Your task to perform on an android device: Go to Reddit.com Image 0: 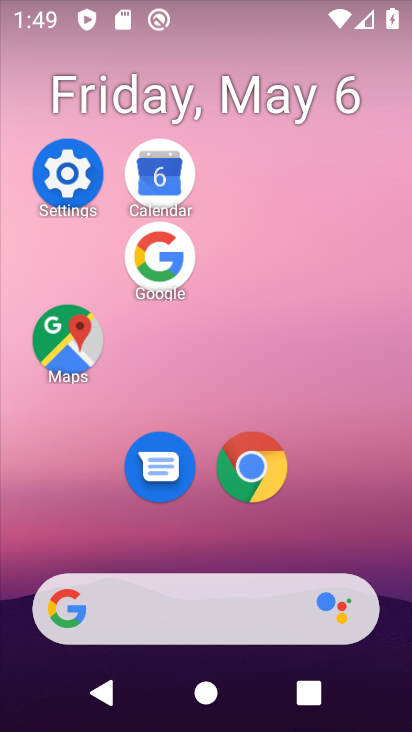
Step 0: click (260, 467)
Your task to perform on an android device: Go to Reddit.com Image 1: 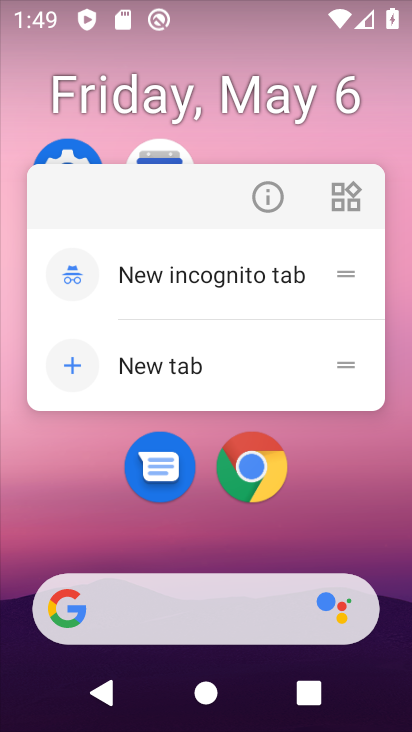
Step 1: click (260, 467)
Your task to perform on an android device: Go to Reddit.com Image 2: 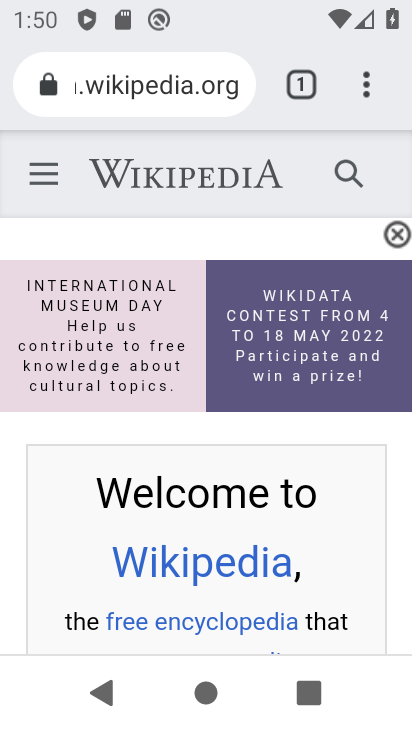
Step 2: click (289, 89)
Your task to perform on an android device: Go to Reddit.com Image 3: 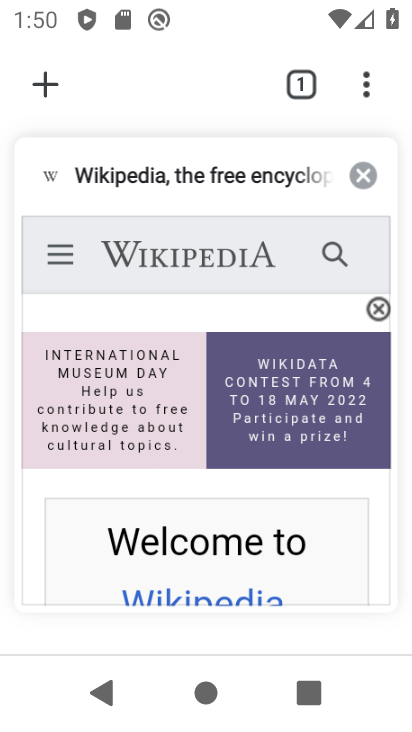
Step 3: click (56, 75)
Your task to perform on an android device: Go to Reddit.com Image 4: 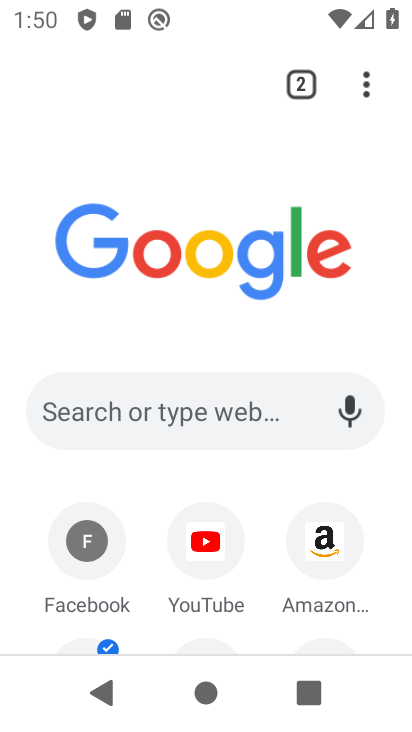
Step 4: click (207, 416)
Your task to perform on an android device: Go to Reddit.com Image 5: 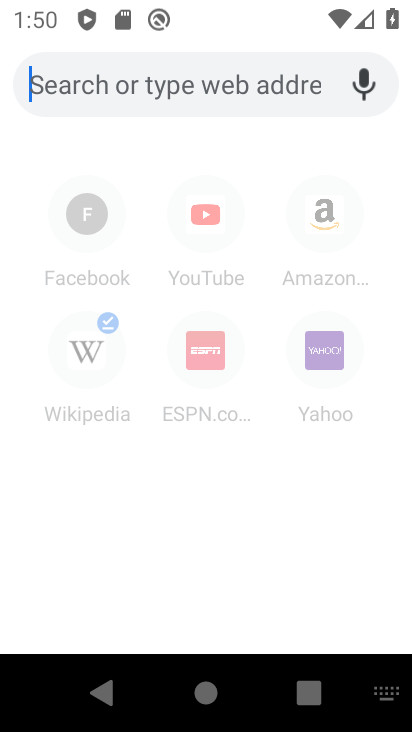
Step 5: type "reddit"
Your task to perform on an android device: Go to Reddit.com Image 6: 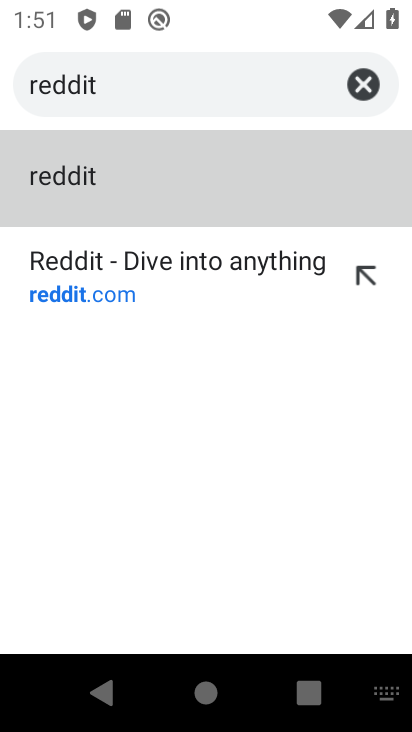
Step 6: click (76, 287)
Your task to perform on an android device: Go to Reddit.com Image 7: 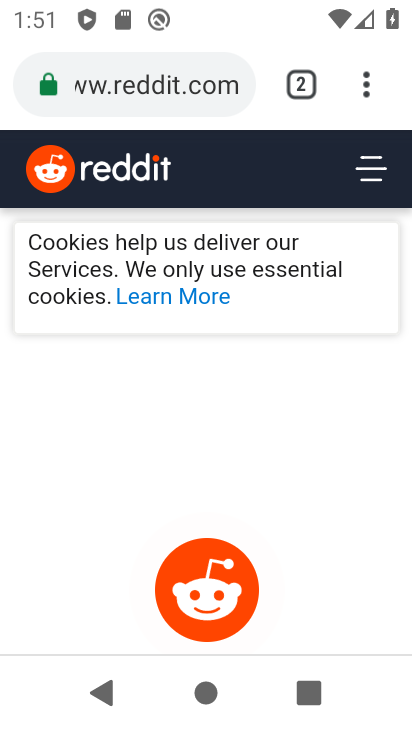
Step 7: task complete